Your task to perform on an android device: add a contact Image 0: 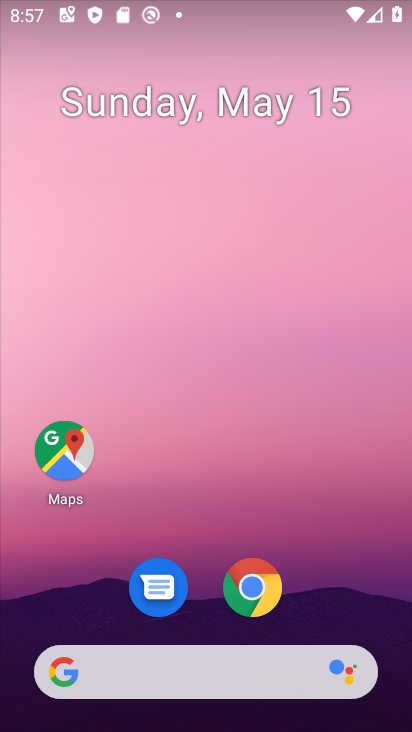
Step 0: drag from (375, 590) to (286, 48)
Your task to perform on an android device: add a contact Image 1: 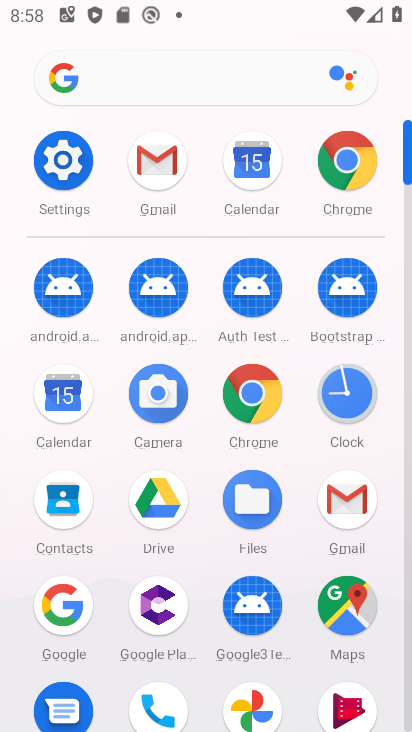
Step 1: click (93, 504)
Your task to perform on an android device: add a contact Image 2: 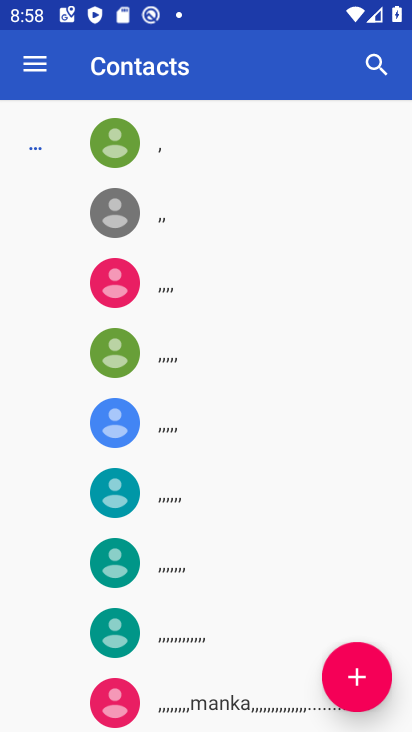
Step 2: click (348, 684)
Your task to perform on an android device: add a contact Image 3: 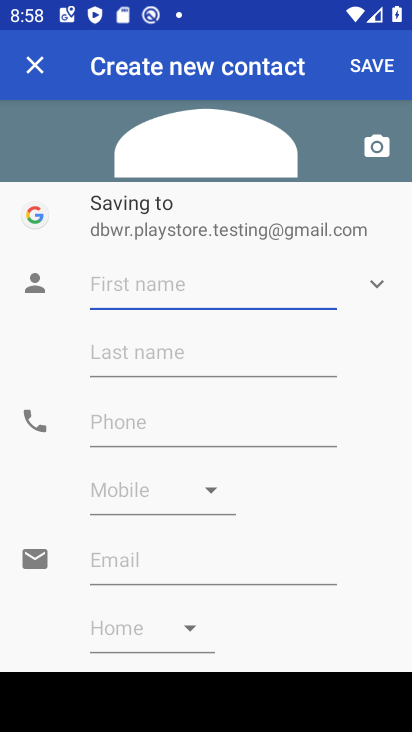
Step 3: type "kanika"
Your task to perform on an android device: add a contact Image 4: 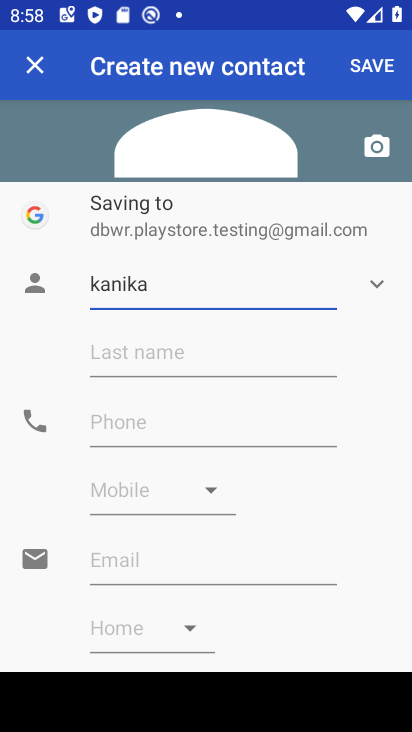
Step 4: click (376, 67)
Your task to perform on an android device: add a contact Image 5: 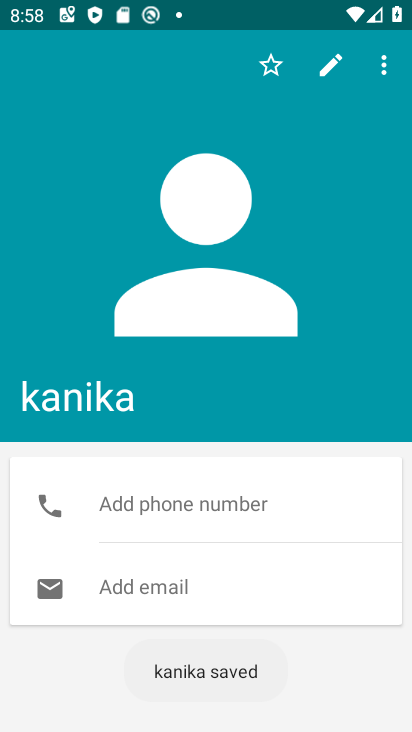
Step 5: task complete